Your task to perform on an android device: Go to network settings Image 0: 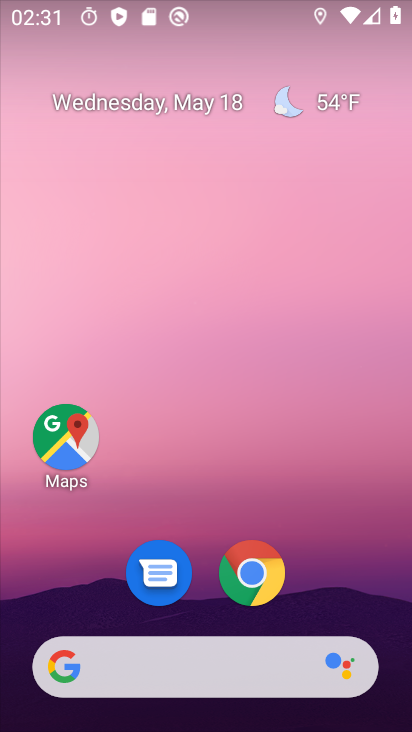
Step 0: drag from (206, 609) to (228, 217)
Your task to perform on an android device: Go to network settings Image 1: 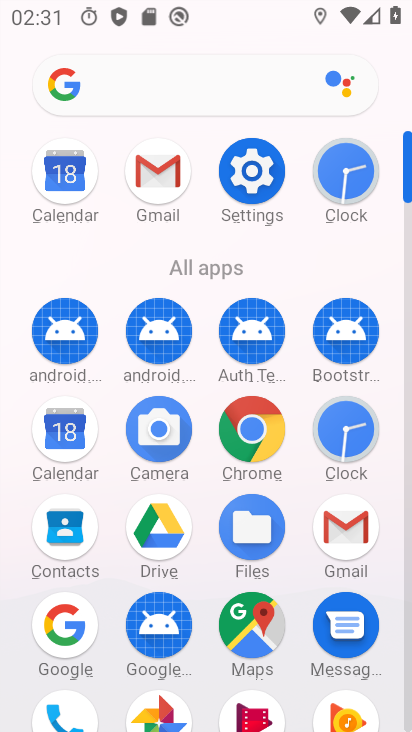
Step 1: click (240, 192)
Your task to perform on an android device: Go to network settings Image 2: 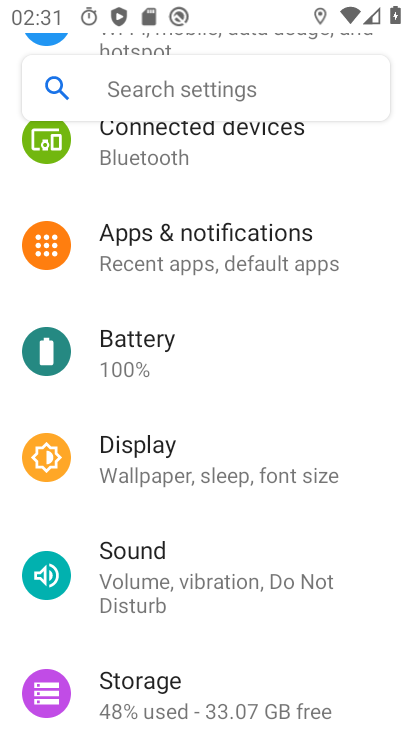
Step 2: drag from (236, 209) to (233, 542)
Your task to perform on an android device: Go to network settings Image 3: 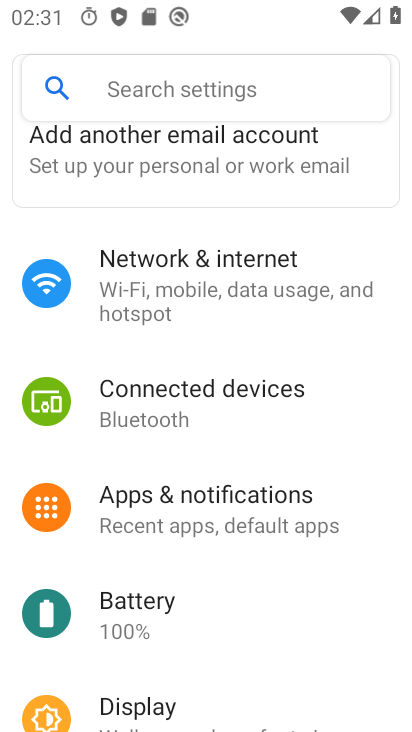
Step 3: click (203, 278)
Your task to perform on an android device: Go to network settings Image 4: 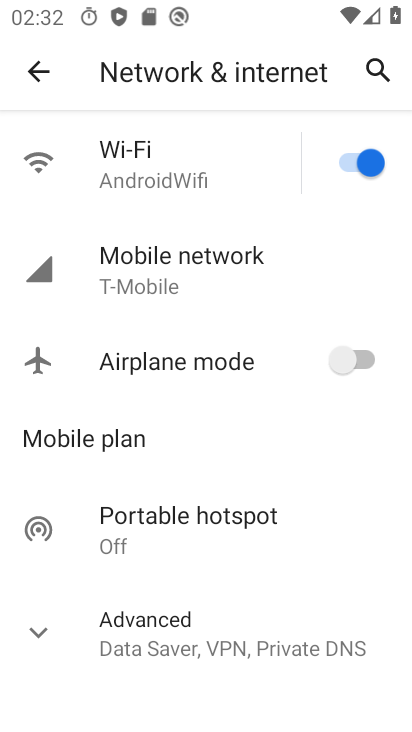
Step 4: click (204, 246)
Your task to perform on an android device: Go to network settings Image 5: 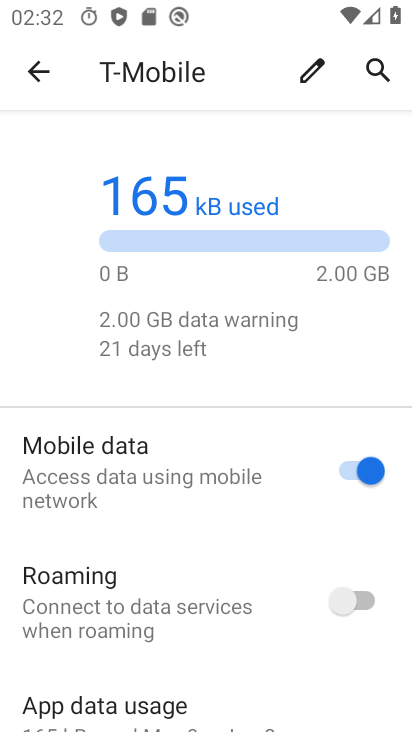
Step 5: task complete